Your task to perform on an android device: turn on notifications settings in the gmail app Image 0: 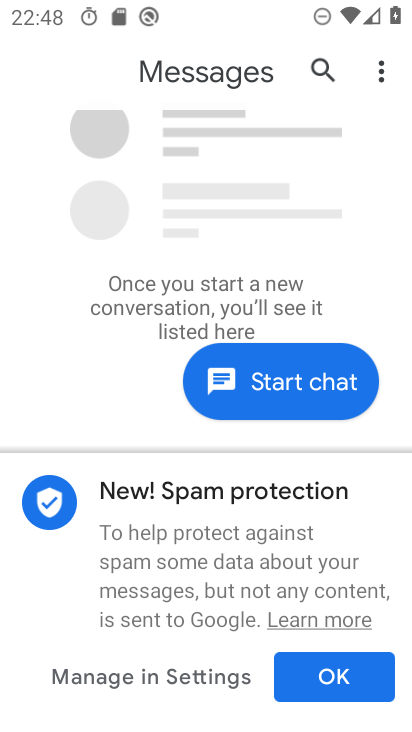
Step 0: press home button
Your task to perform on an android device: turn on notifications settings in the gmail app Image 1: 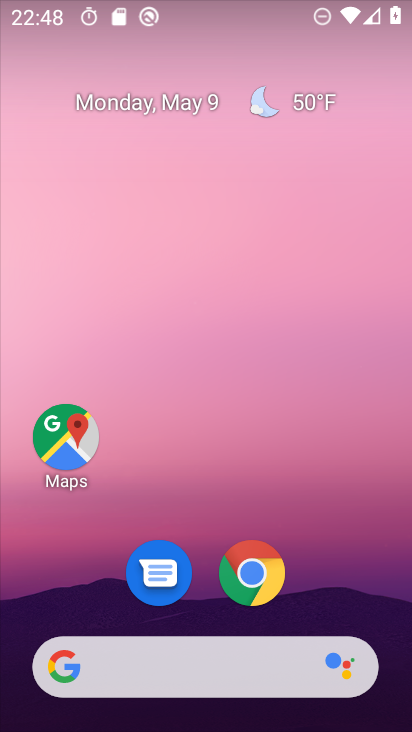
Step 1: drag from (310, 560) to (242, 168)
Your task to perform on an android device: turn on notifications settings in the gmail app Image 2: 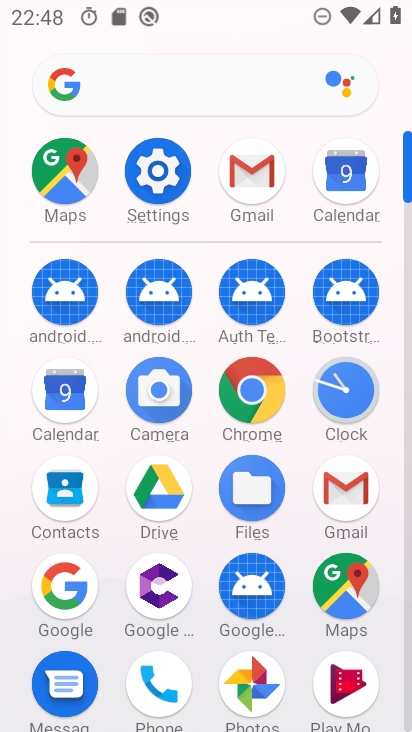
Step 2: click (251, 166)
Your task to perform on an android device: turn on notifications settings in the gmail app Image 3: 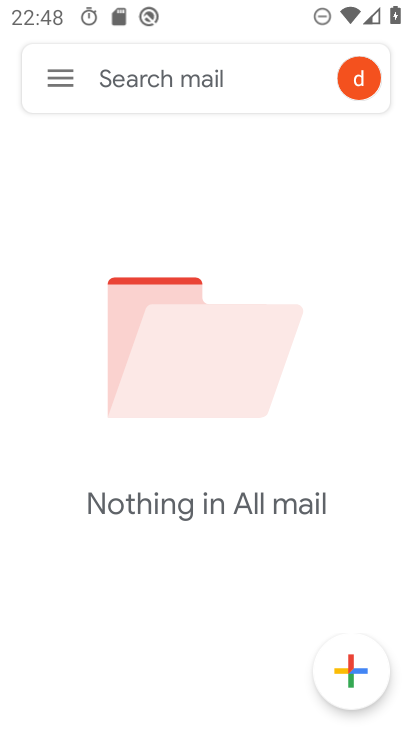
Step 3: click (54, 73)
Your task to perform on an android device: turn on notifications settings in the gmail app Image 4: 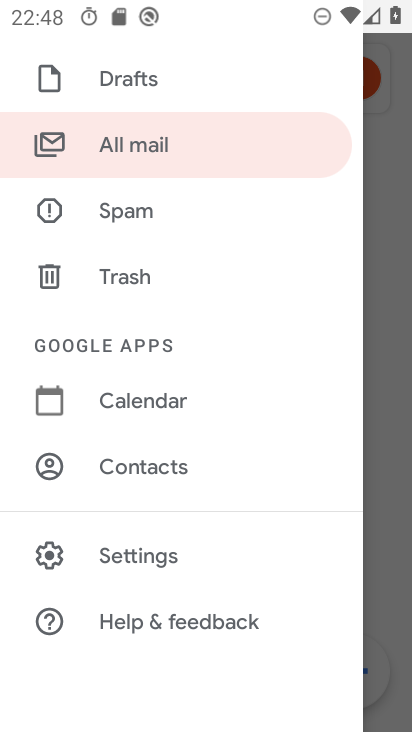
Step 4: click (171, 551)
Your task to perform on an android device: turn on notifications settings in the gmail app Image 5: 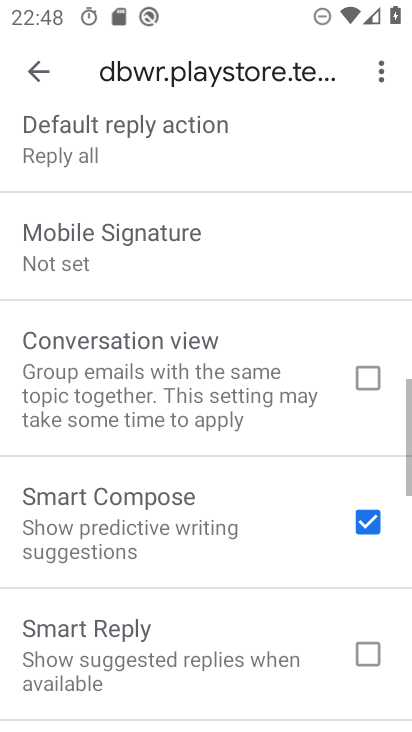
Step 5: drag from (179, 176) to (228, 581)
Your task to perform on an android device: turn on notifications settings in the gmail app Image 6: 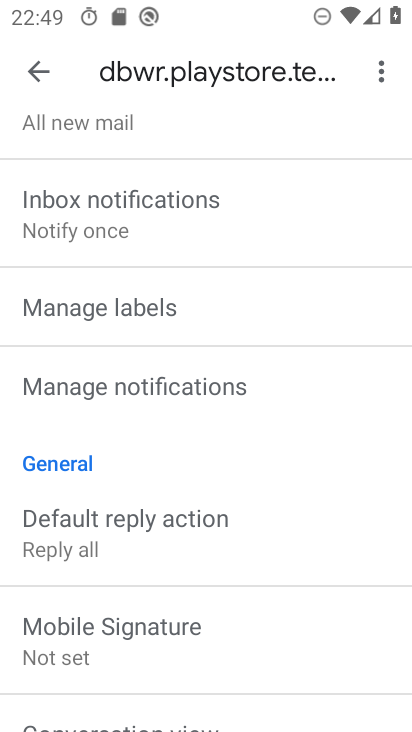
Step 6: click (181, 392)
Your task to perform on an android device: turn on notifications settings in the gmail app Image 7: 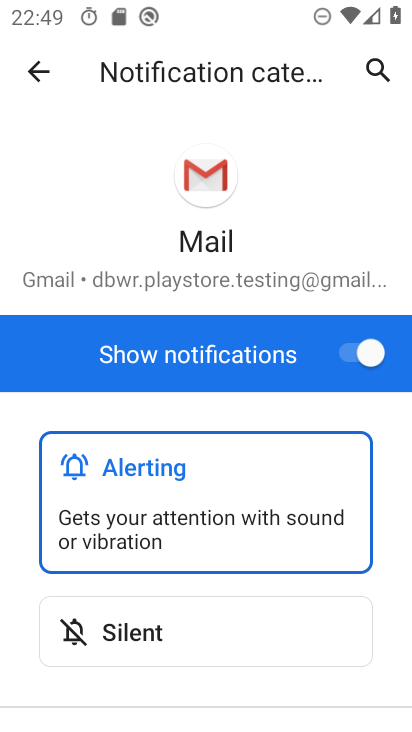
Step 7: task complete